Your task to perform on an android device: change notification settings in the gmail app Image 0: 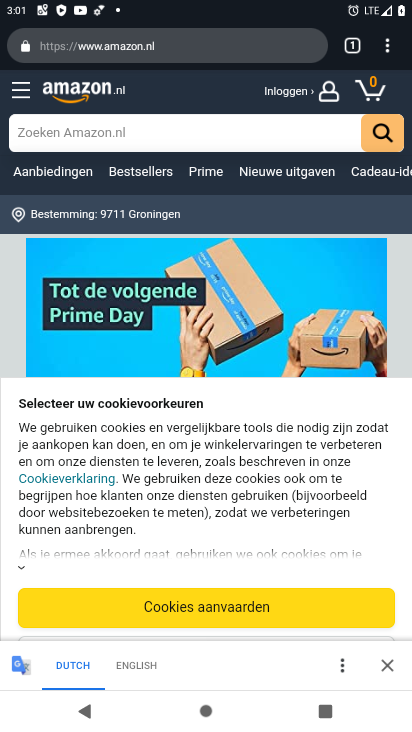
Step 0: press home button
Your task to perform on an android device: change notification settings in the gmail app Image 1: 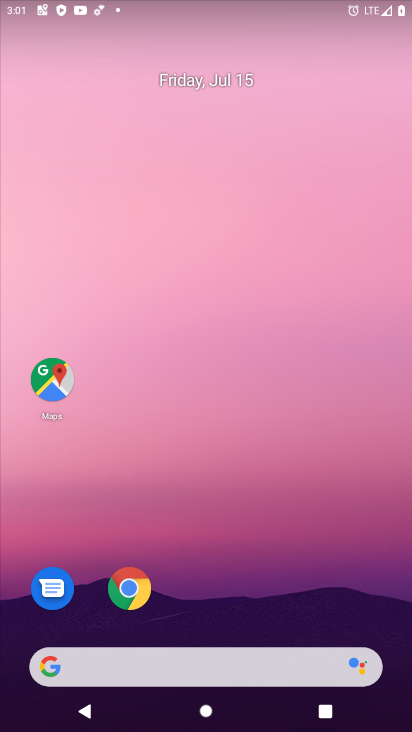
Step 1: drag from (191, 672) to (196, 152)
Your task to perform on an android device: change notification settings in the gmail app Image 2: 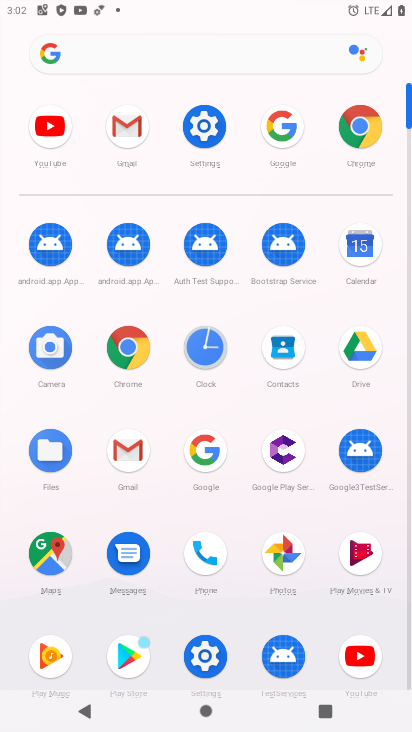
Step 2: click (126, 123)
Your task to perform on an android device: change notification settings in the gmail app Image 3: 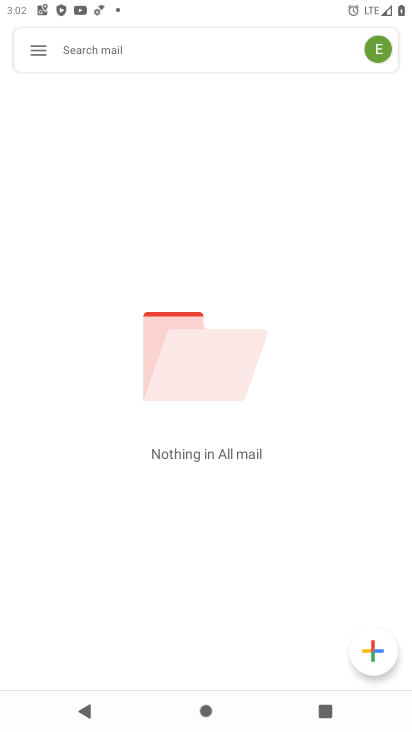
Step 3: click (36, 52)
Your task to perform on an android device: change notification settings in the gmail app Image 4: 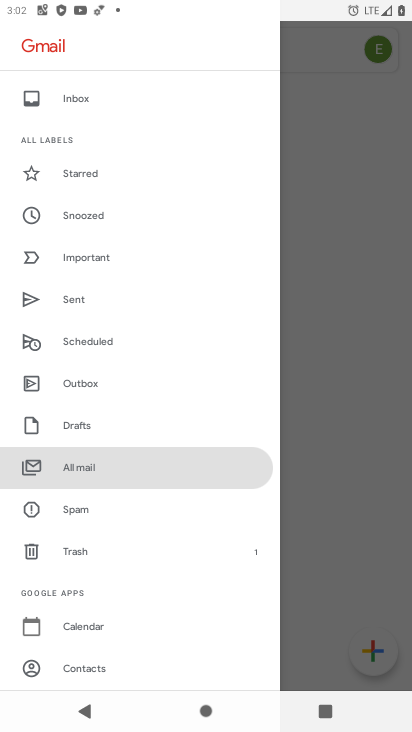
Step 4: drag from (83, 522) to (49, 252)
Your task to perform on an android device: change notification settings in the gmail app Image 5: 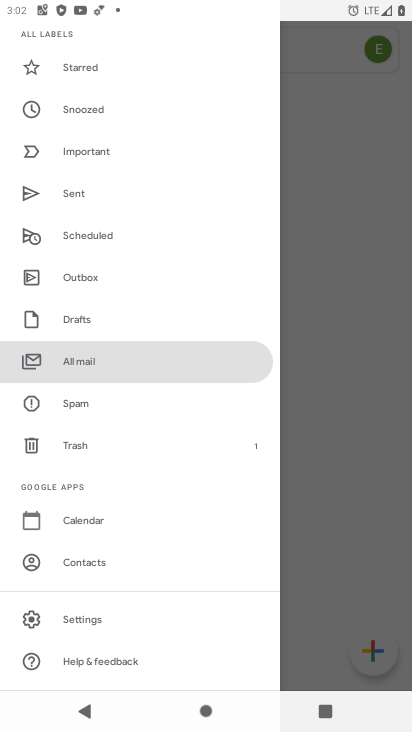
Step 5: click (80, 624)
Your task to perform on an android device: change notification settings in the gmail app Image 6: 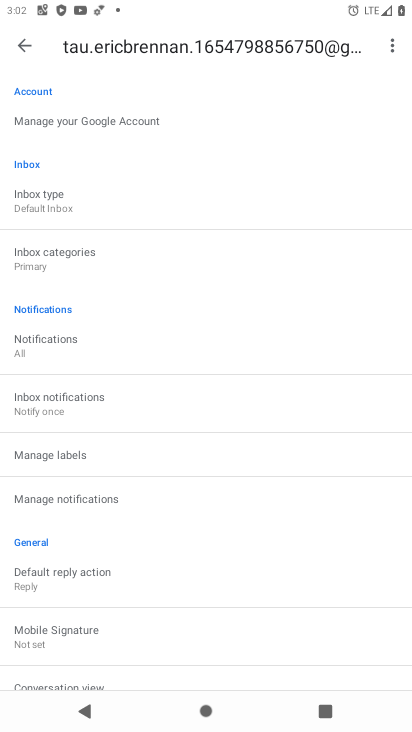
Step 6: click (80, 498)
Your task to perform on an android device: change notification settings in the gmail app Image 7: 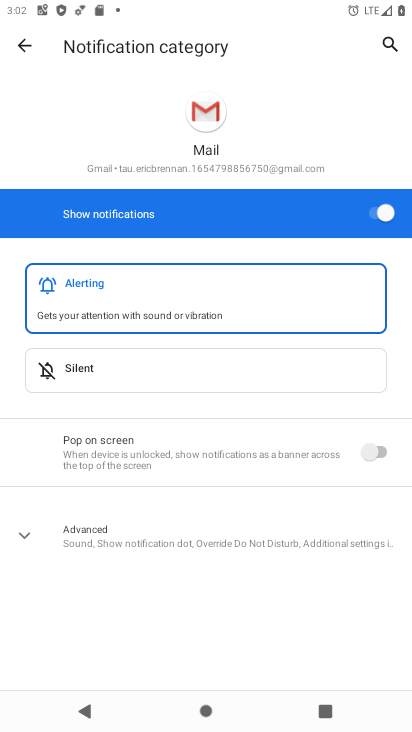
Step 7: click (373, 220)
Your task to perform on an android device: change notification settings in the gmail app Image 8: 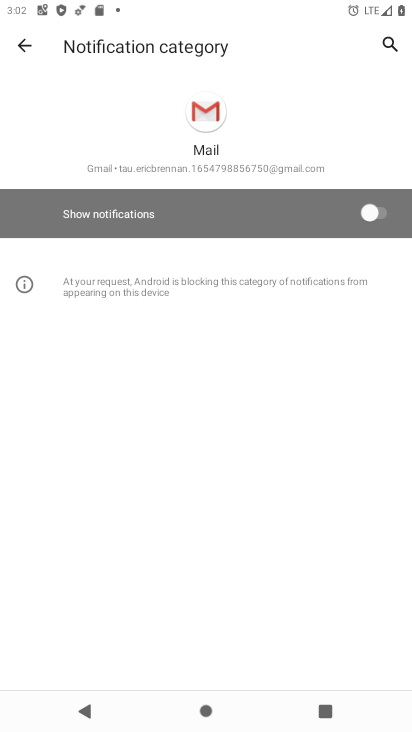
Step 8: task complete